Your task to perform on an android device: turn on priority inbox in the gmail app Image 0: 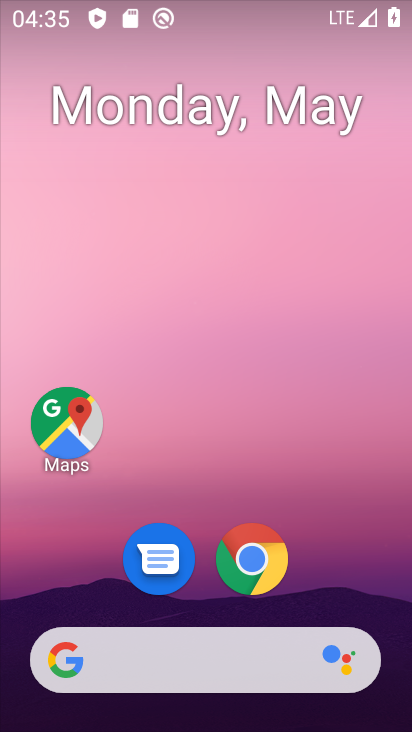
Step 0: drag from (317, 528) to (378, 0)
Your task to perform on an android device: turn on priority inbox in the gmail app Image 1: 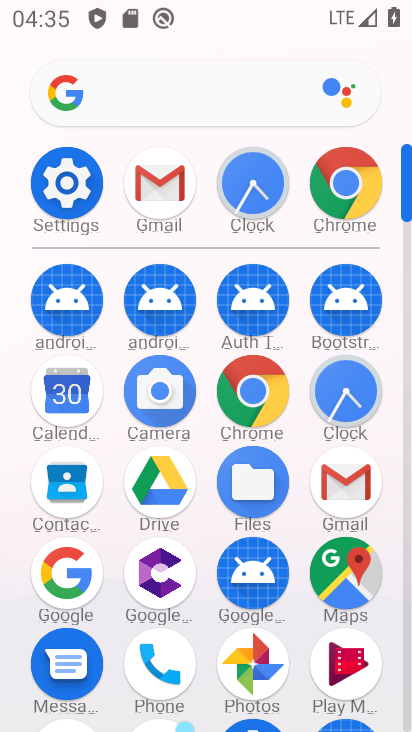
Step 1: click (338, 485)
Your task to perform on an android device: turn on priority inbox in the gmail app Image 2: 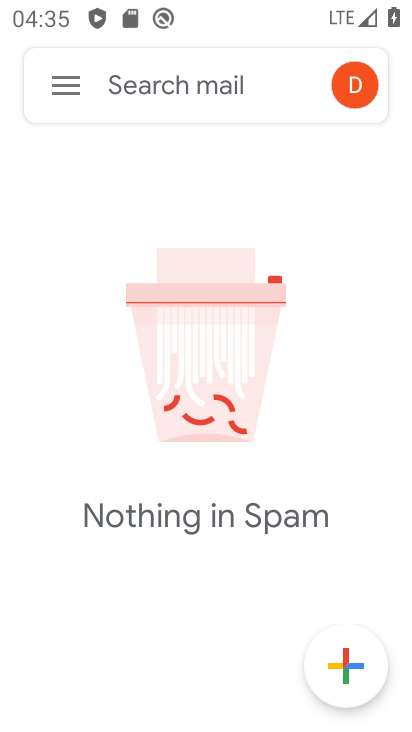
Step 2: task complete